Your task to perform on an android device: turn on location history Image 0: 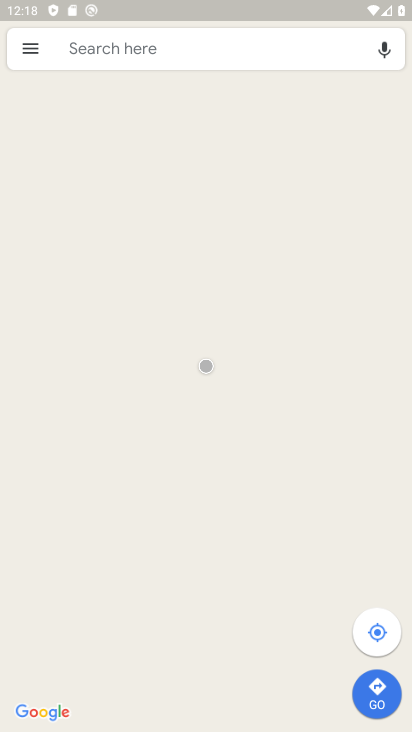
Step 0: press home button
Your task to perform on an android device: turn on location history Image 1: 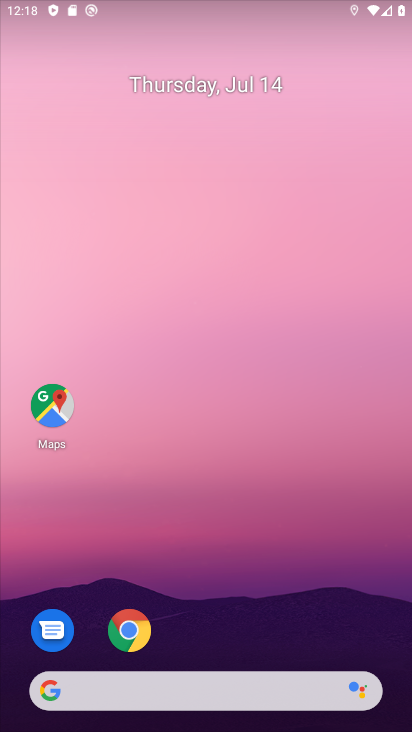
Step 1: drag from (171, 664) to (208, 218)
Your task to perform on an android device: turn on location history Image 2: 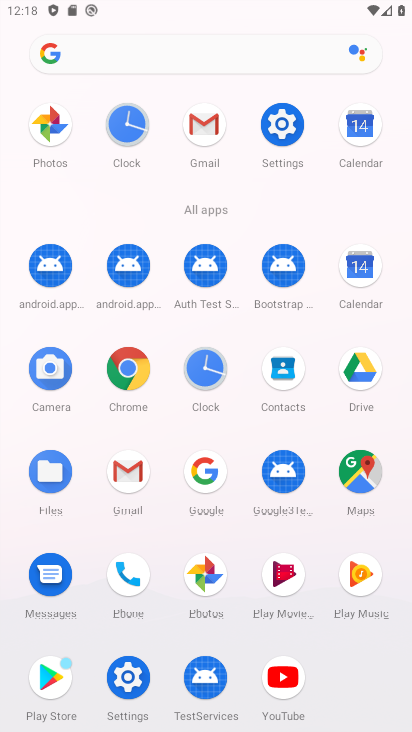
Step 2: click (291, 116)
Your task to perform on an android device: turn on location history Image 3: 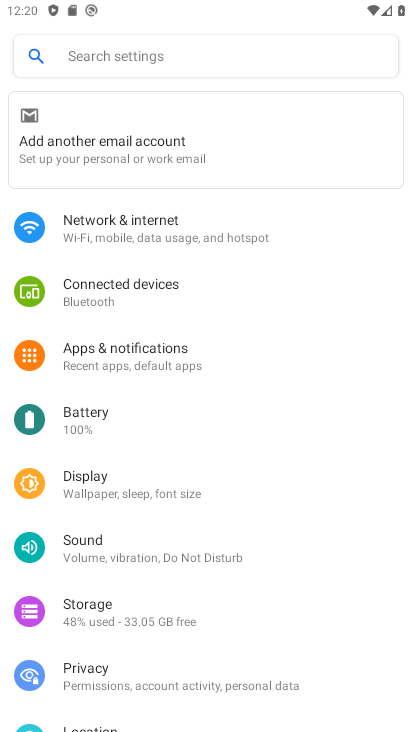
Step 3: drag from (116, 665) to (102, 316)
Your task to perform on an android device: turn on location history Image 4: 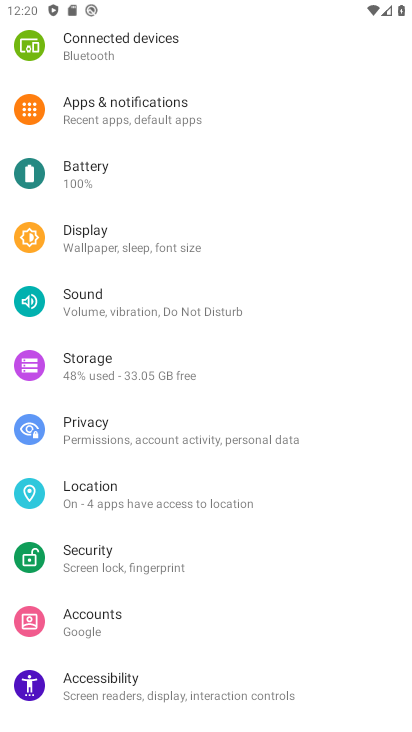
Step 4: click (128, 494)
Your task to perform on an android device: turn on location history Image 5: 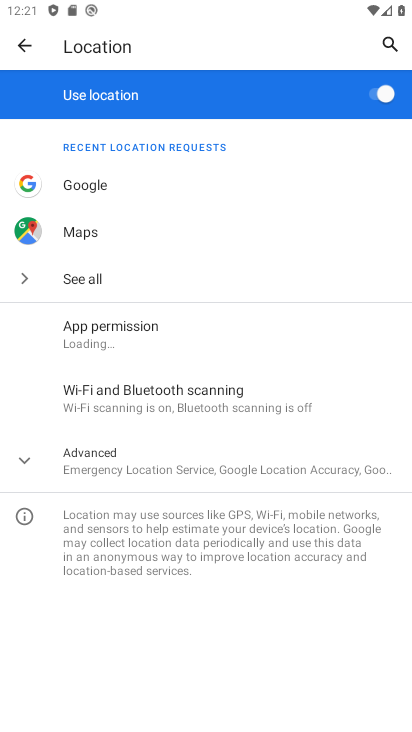
Step 5: click (110, 450)
Your task to perform on an android device: turn on location history Image 6: 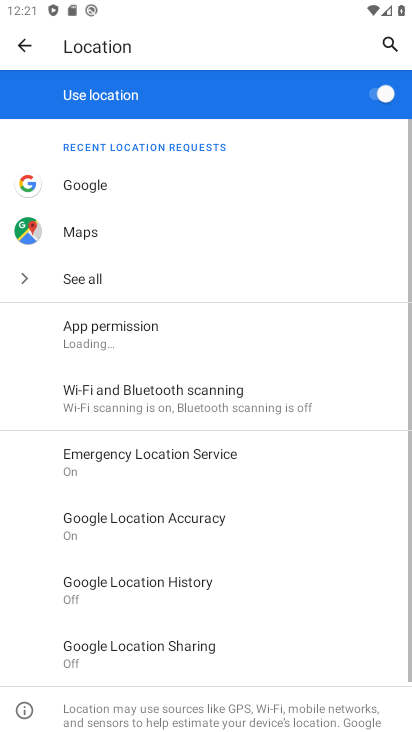
Step 6: drag from (171, 699) to (186, 352)
Your task to perform on an android device: turn on location history Image 7: 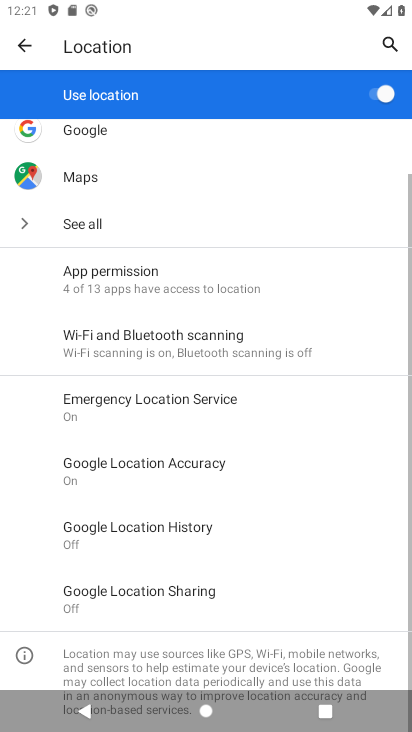
Step 7: click (147, 521)
Your task to perform on an android device: turn on location history Image 8: 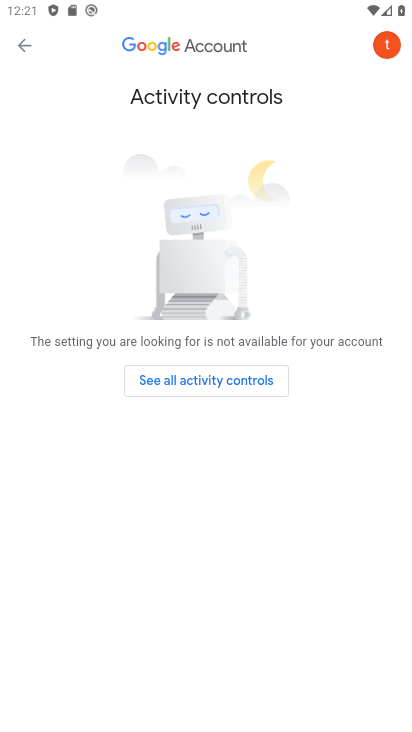
Step 8: click (262, 385)
Your task to perform on an android device: turn on location history Image 9: 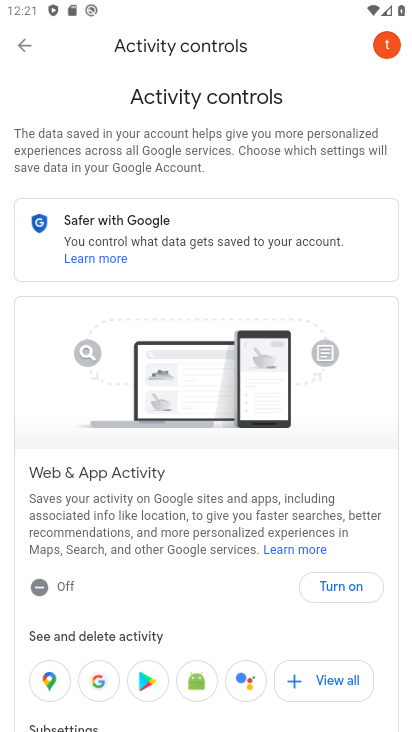
Step 9: click (332, 584)
Your task to perform on an android device: turn on location history Image 10: 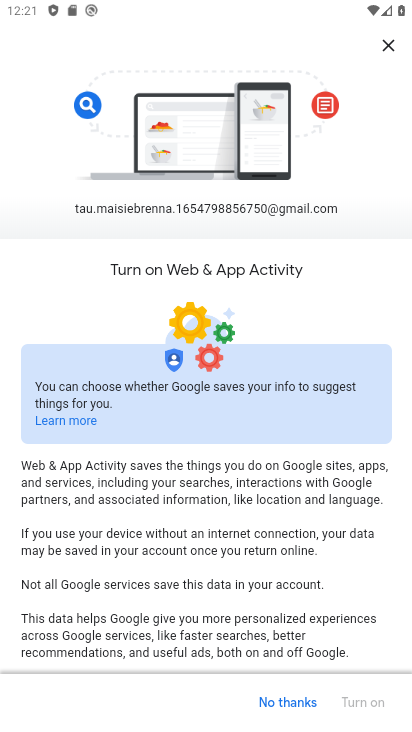
Step 10: drag from (341, 648) to (386, 235)
Your task to perform on an android device: turn on location history Image 11: 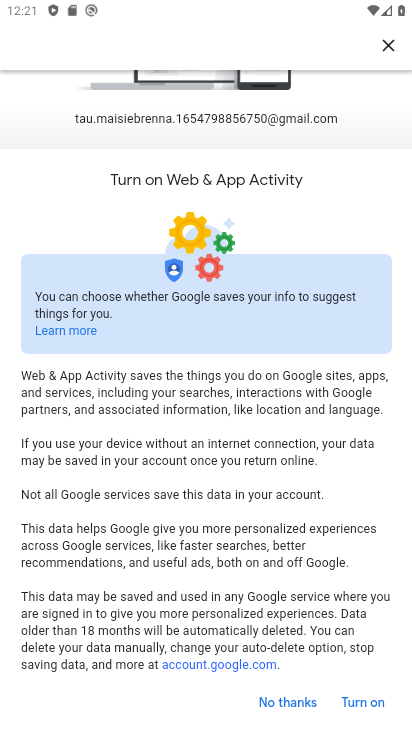
Step 11: click (364, 705)
Your task to perform on an android device: turn on location history Image 12: 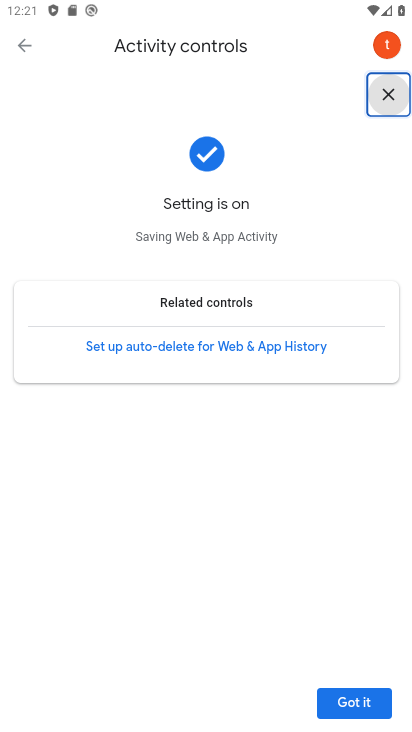
Step 12: click (342, 709)
Your task to perform on an android device: turn on location history Image 13: 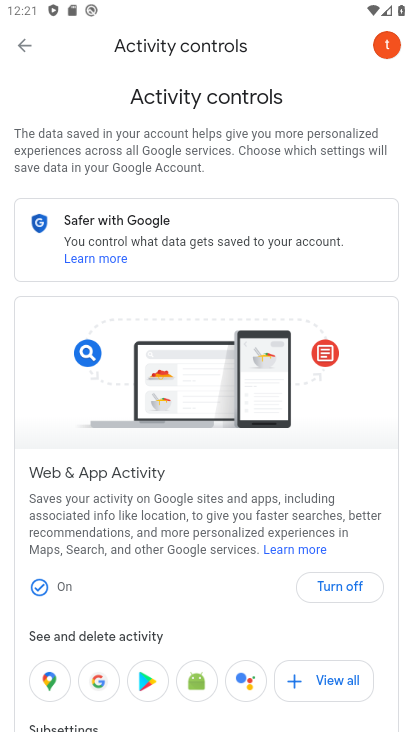
Step 13: task complete